Your task to perform on an android device: Open Youtube and go to "Your channel" Image 0: 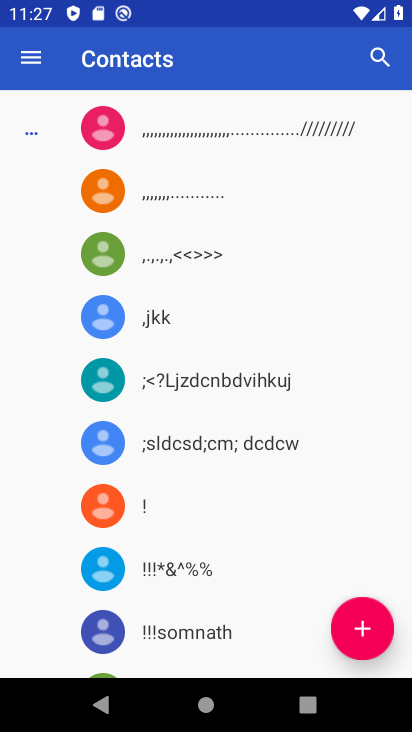
Step 0: press home button
Your task to perform on an android device: Open Youtube and go to "Your channel" Image 1: 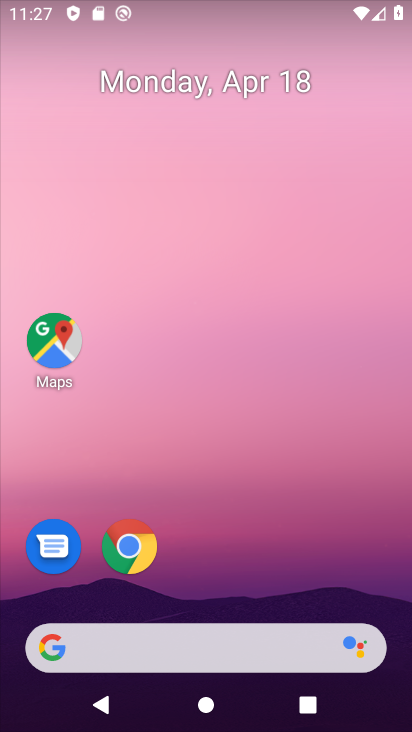
Step 1: drag from (219, 542) to (264, 27)
Your task to perform on an android device: Open Youtube and go to "Your channel" Image 2: 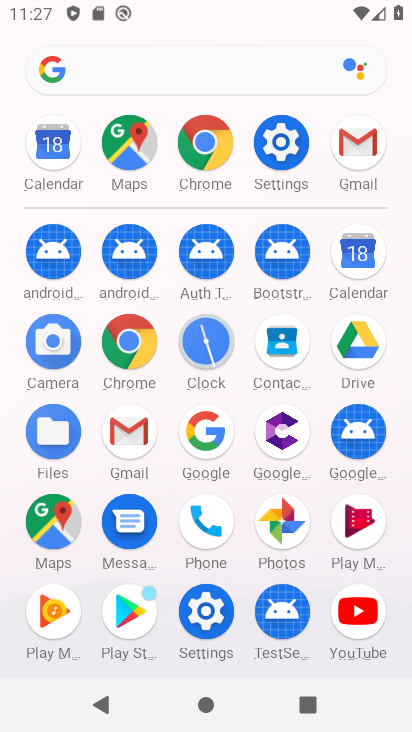
Step 2: click (369, 628)
Your task to perform on an android device: Open Youtube and go to "Your channel" Image 3: 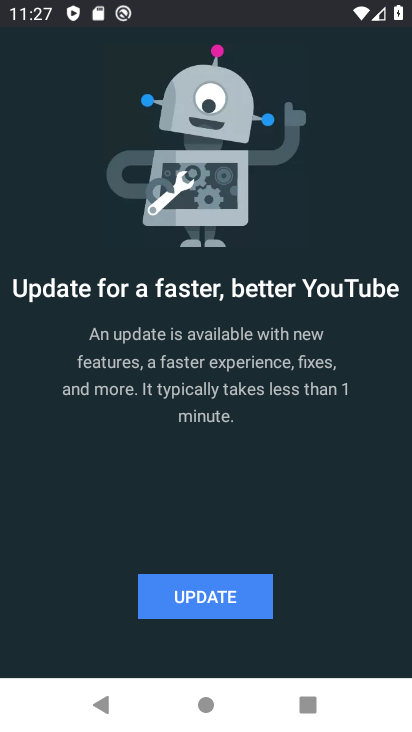
Step 3: click (232, 593)
Your task to perform on an android device: Open Youtube and go to "Your channel" Image 4: 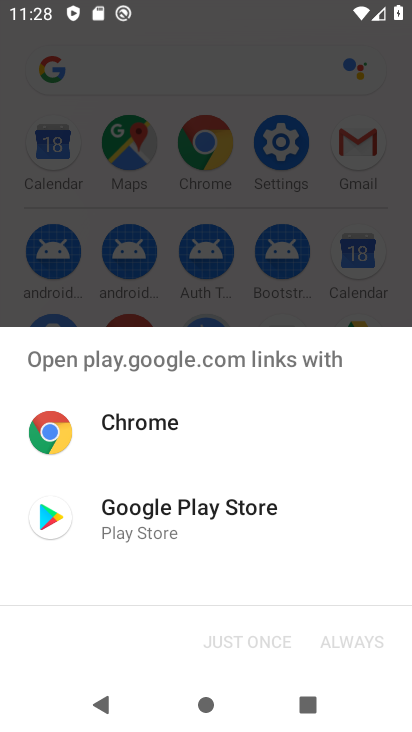
Step 4: click (243, 509)
Your task to perform on an android device: Open Youtube and go to "Your channel" Image 5: 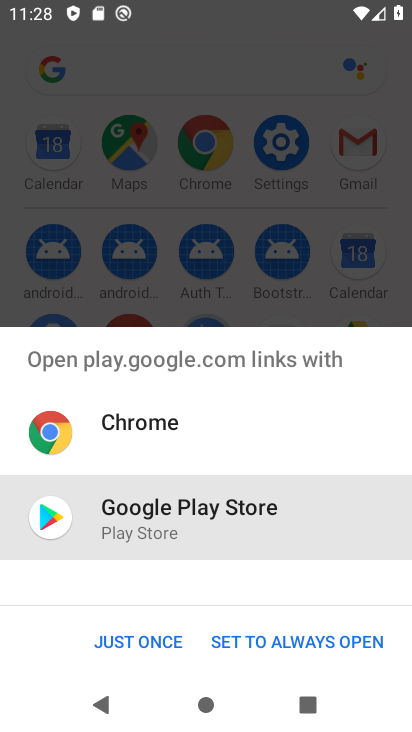
Step 5: click (157, 653)
Your task to perform on an android device: Open Youtube and go to "Your channel" Image 6: 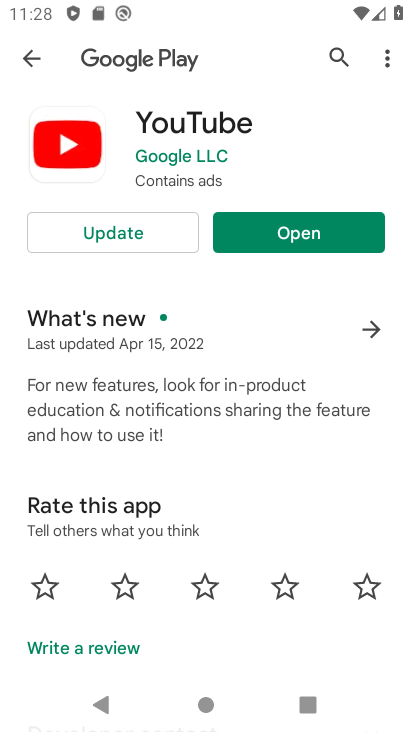
Step 6: click (143, 234)
Your task to perform on an android device: Open Youtube and go to "Your channel" Image 7: 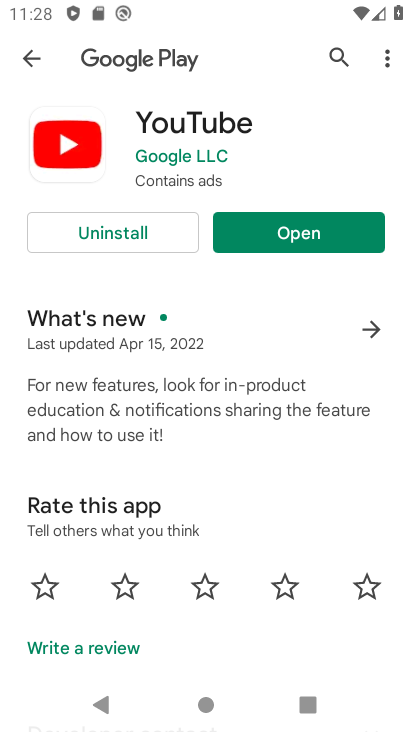
Step 7: click (321, 223)
Your task to perform on an android device: Open Youtube and go to "Your channel" Image 8: 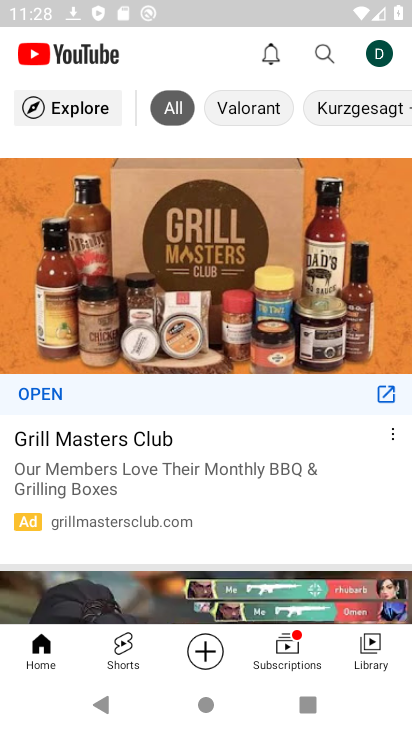
Step 8: click (386, 52)
Your task to perform on an android device: Open Youtube and go to "Your channel" Image 9: 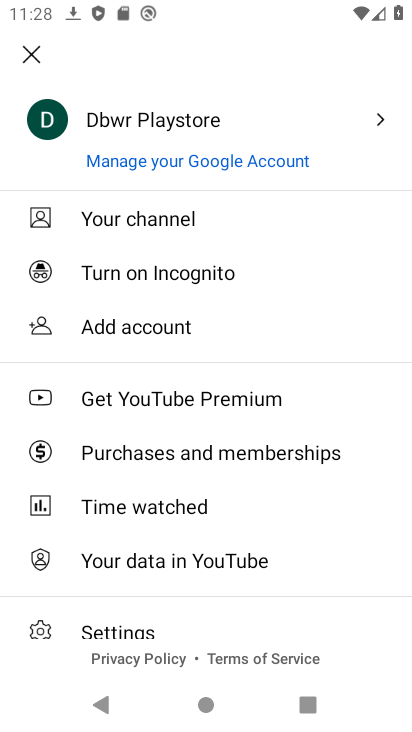
Step 9: click (210, 230)
Your task to perform on an android device: Open Youtube and go to "Your channel" Image 10: 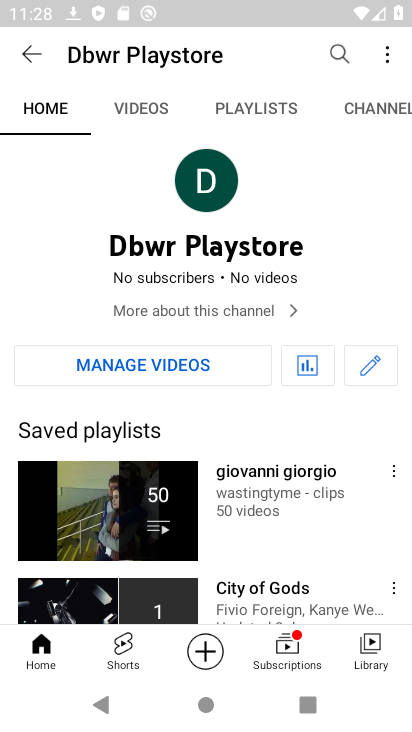
Step 10: task complete